Your task to perform on an android device: turn off airplane mode Image 0: 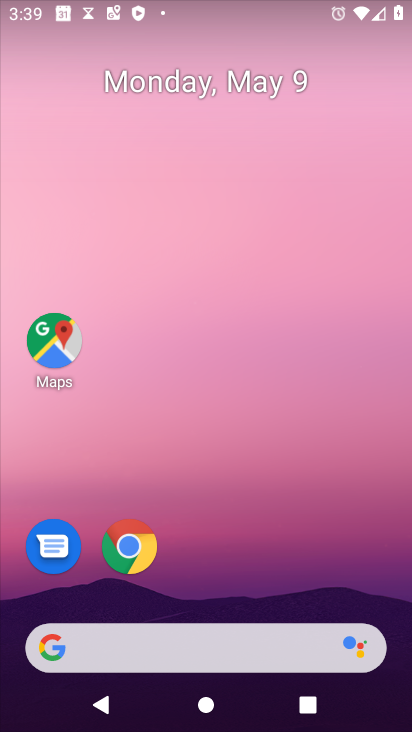
Step 0: drag from (313, 575) to (282, 198)
Your task to perform on an android device: turn off airplane mode Image 1: 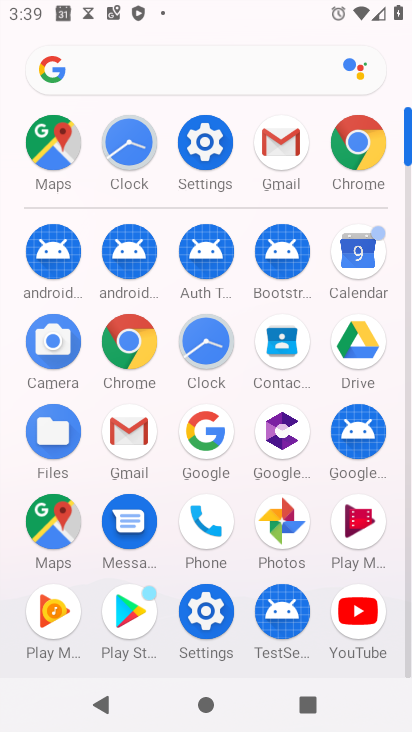
Step 1: click (191, 152)
Your task to perform on an android device: turn off airplane mode Image 2: 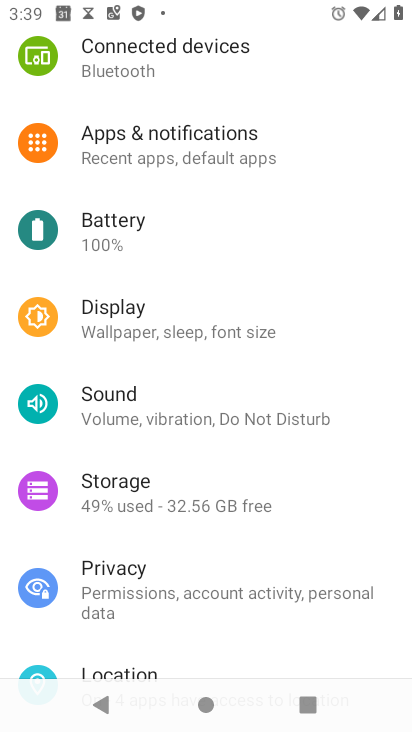
Step 2: drag from (172, 168) to (276, 524)
Your task to perform on an android device: turn off airplane mode Image 3: 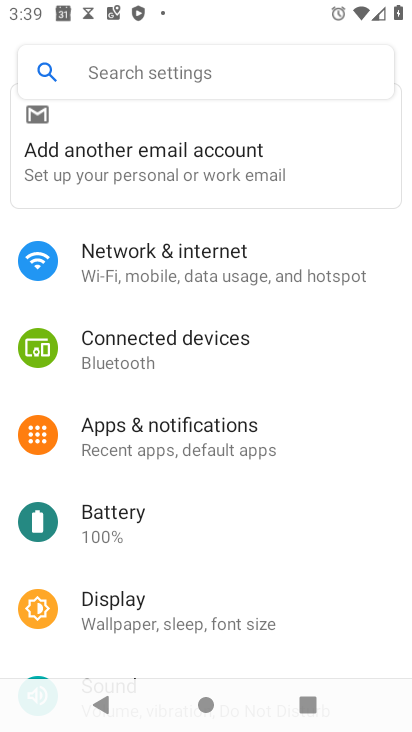
Step 3: click (235, 279)
Your task to perform on an android device: turn off airplane mode Image 4: 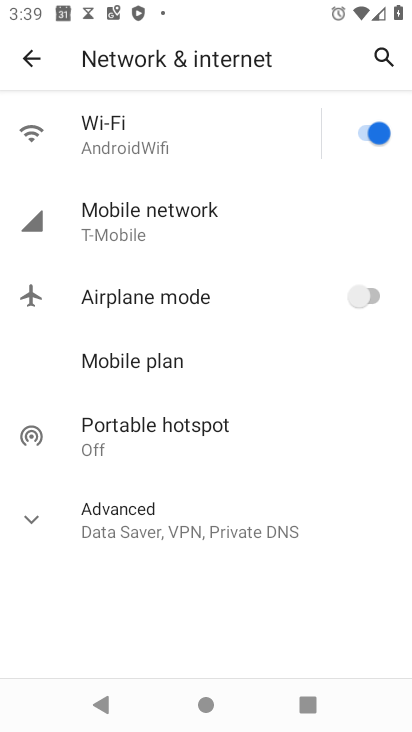
Step 4: task complete